Your task to perform on an android device: View the shopping cart on walmart. Add macbook to the cart on walmart, then select checkout. Image 0: 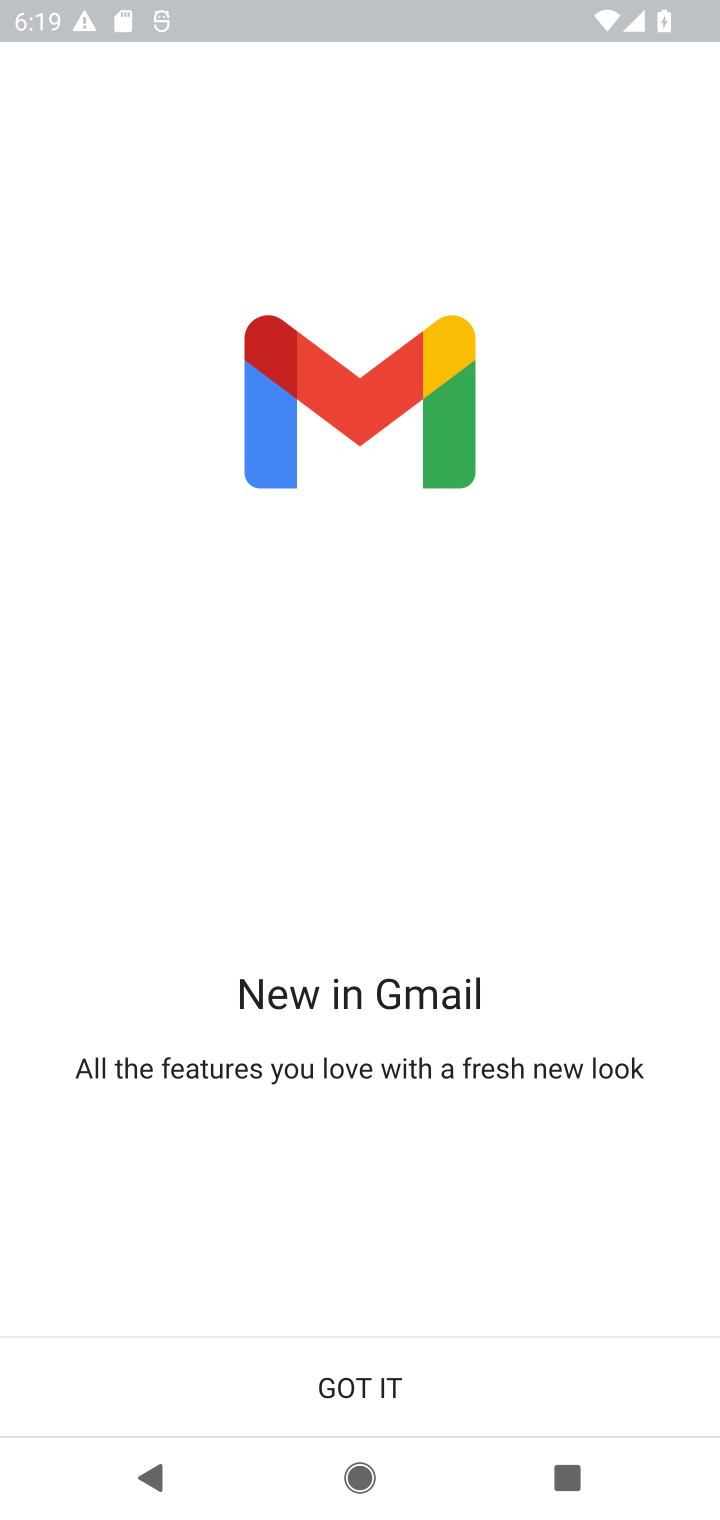
Step 0: press home button
Your task to perform on an android device: View the shopping cart on walmart. Add macbook to the cart on walmart, then select checkout. Image 1: 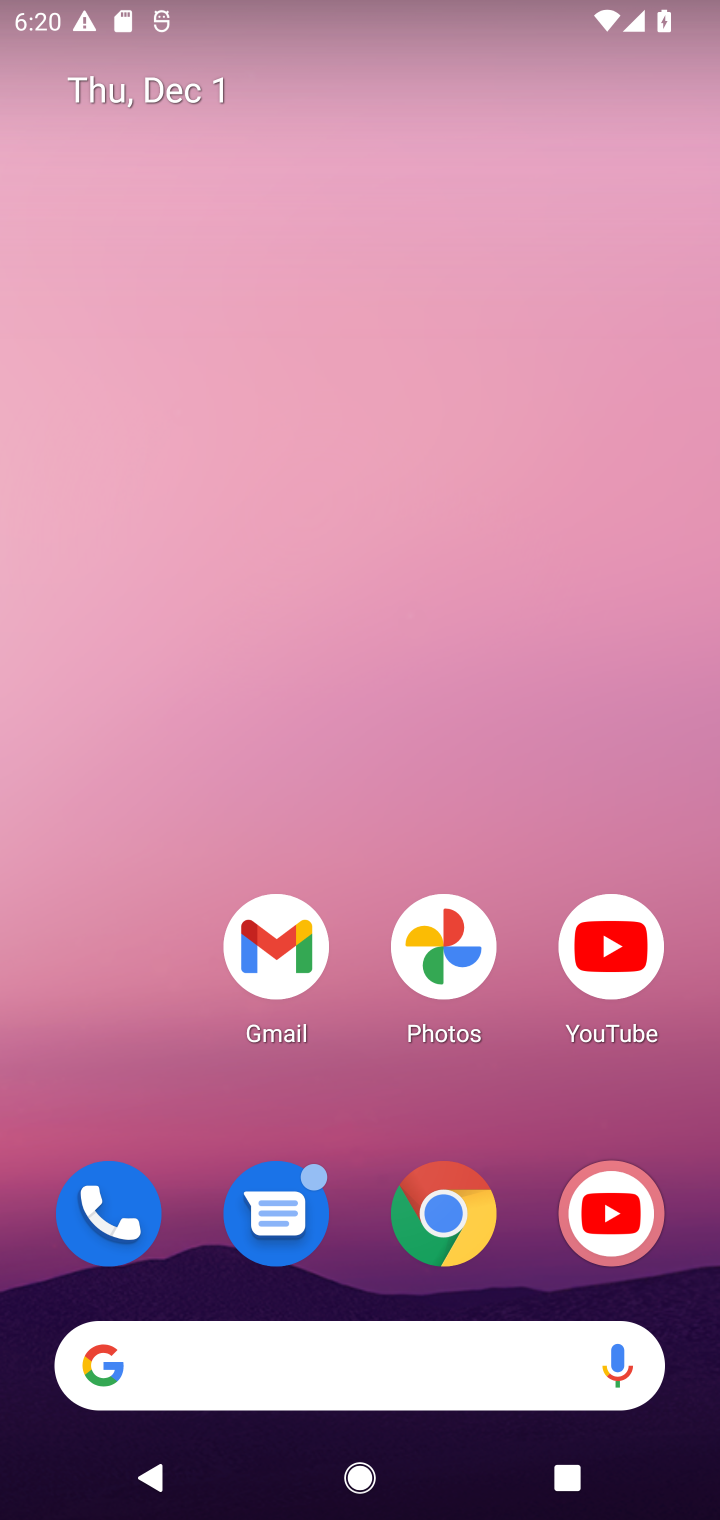
Step 1: click (441, 1369)
Your task to perform on an android device: View the shopping cart on walmart. Add macbook to the cart on walmart, then select checkout. Image 2: 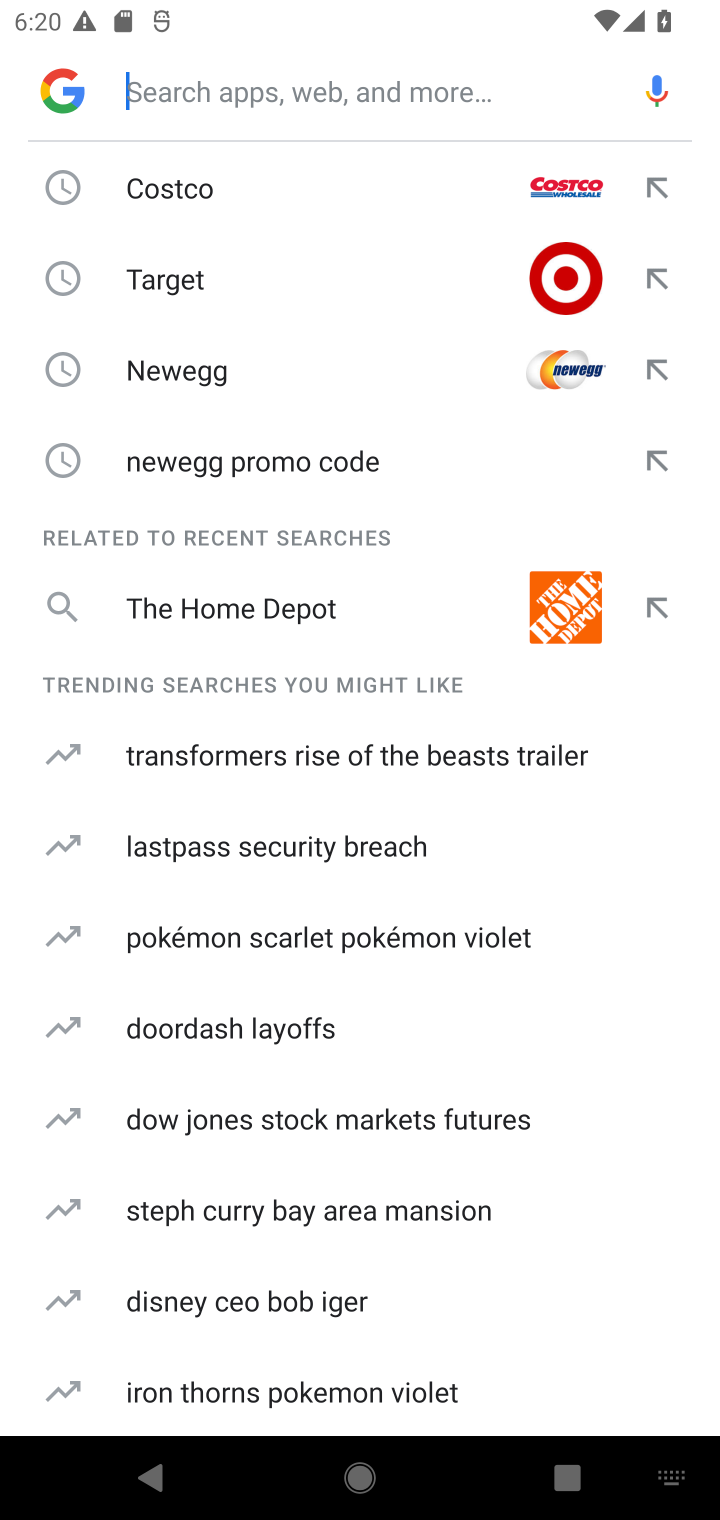
Step 2: type "walmart"
Your task to perform on an android device: View the shopping cart on walmart. Add macbook to the cart on walmart, then select checkout. Image 3: 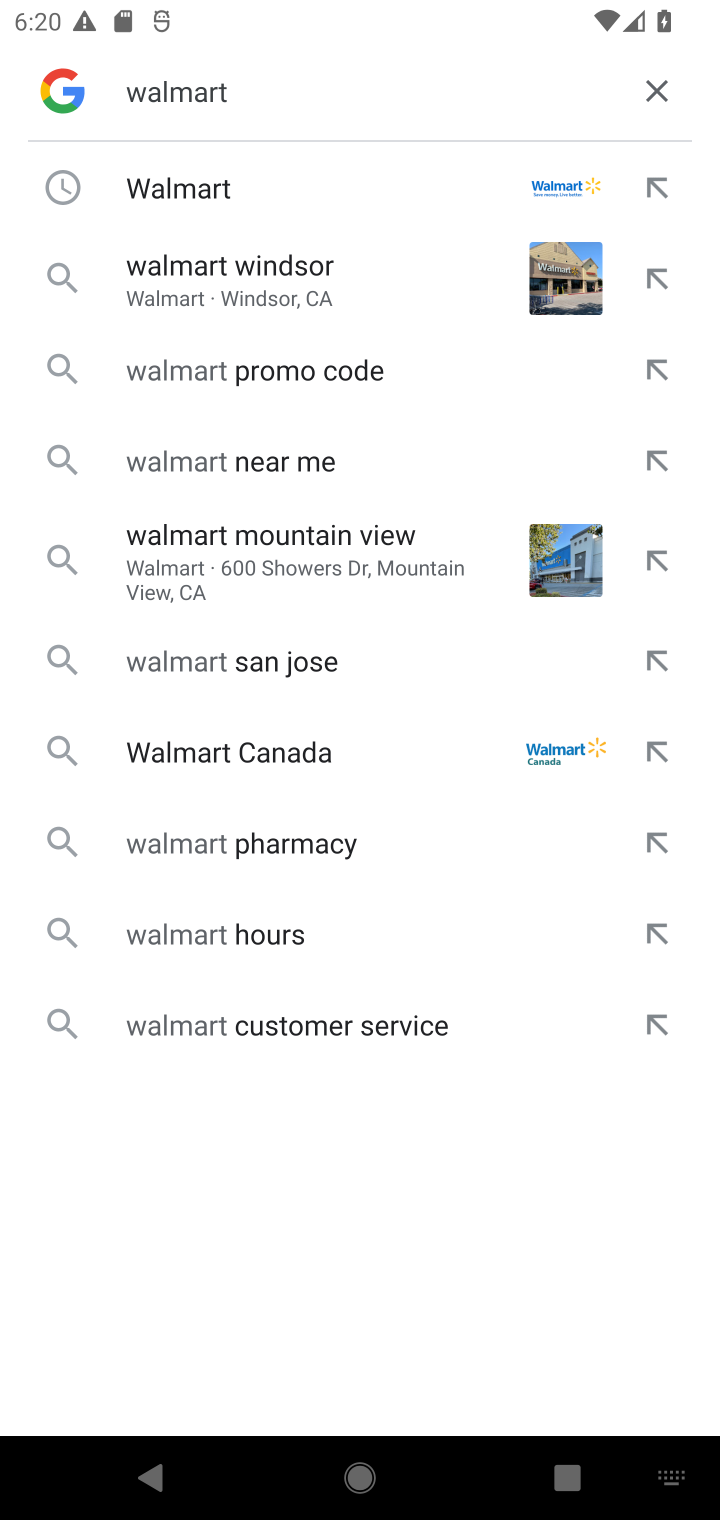
Step 3: click (205, 162)
Your task to perform on an android device: View the shopping cart on walmart. Add macbook to the cart on walmart, then select checkout. Image 4: 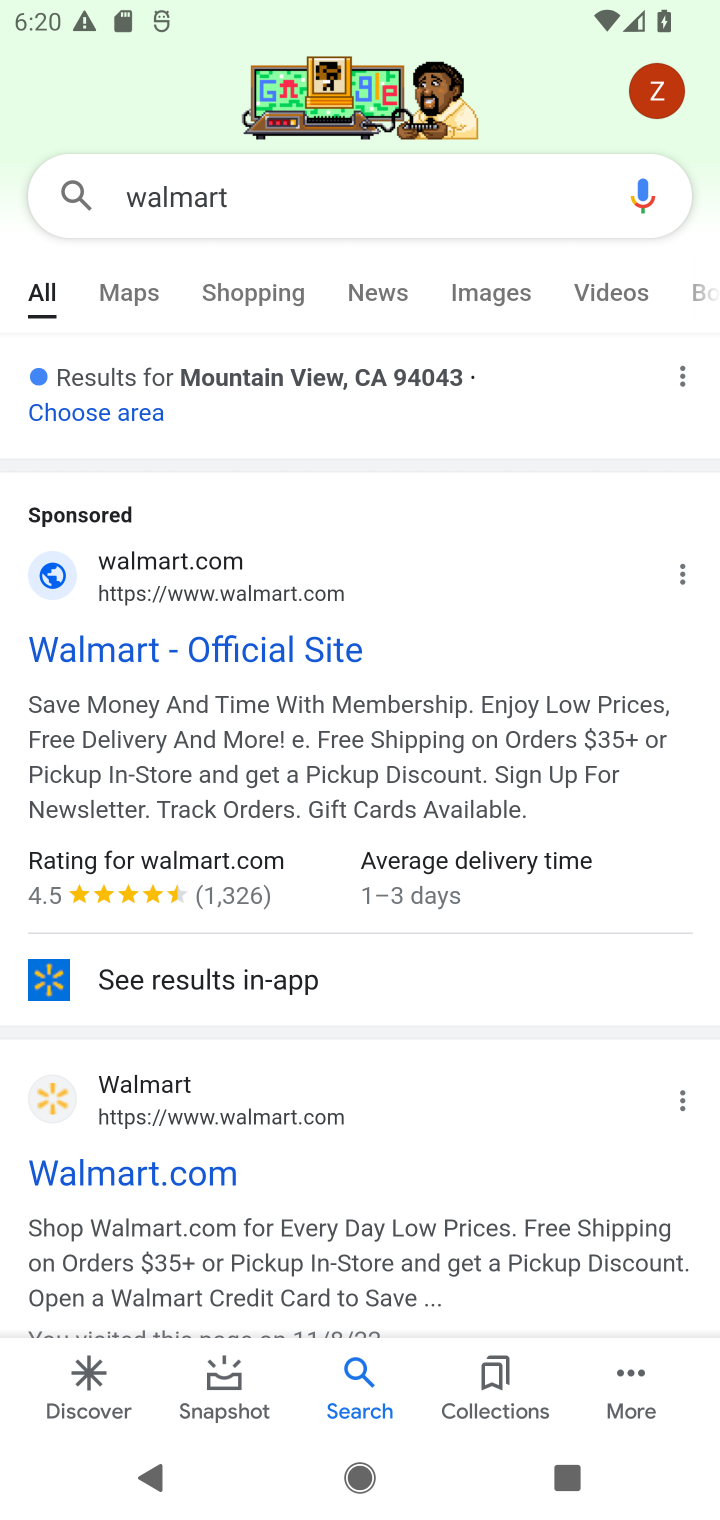
Step 4: click (237, 667)
Your task to perform on an android device: View the shopping cart on walmart. Add macbook to the cart on walmart, then select checkout. Image 5: 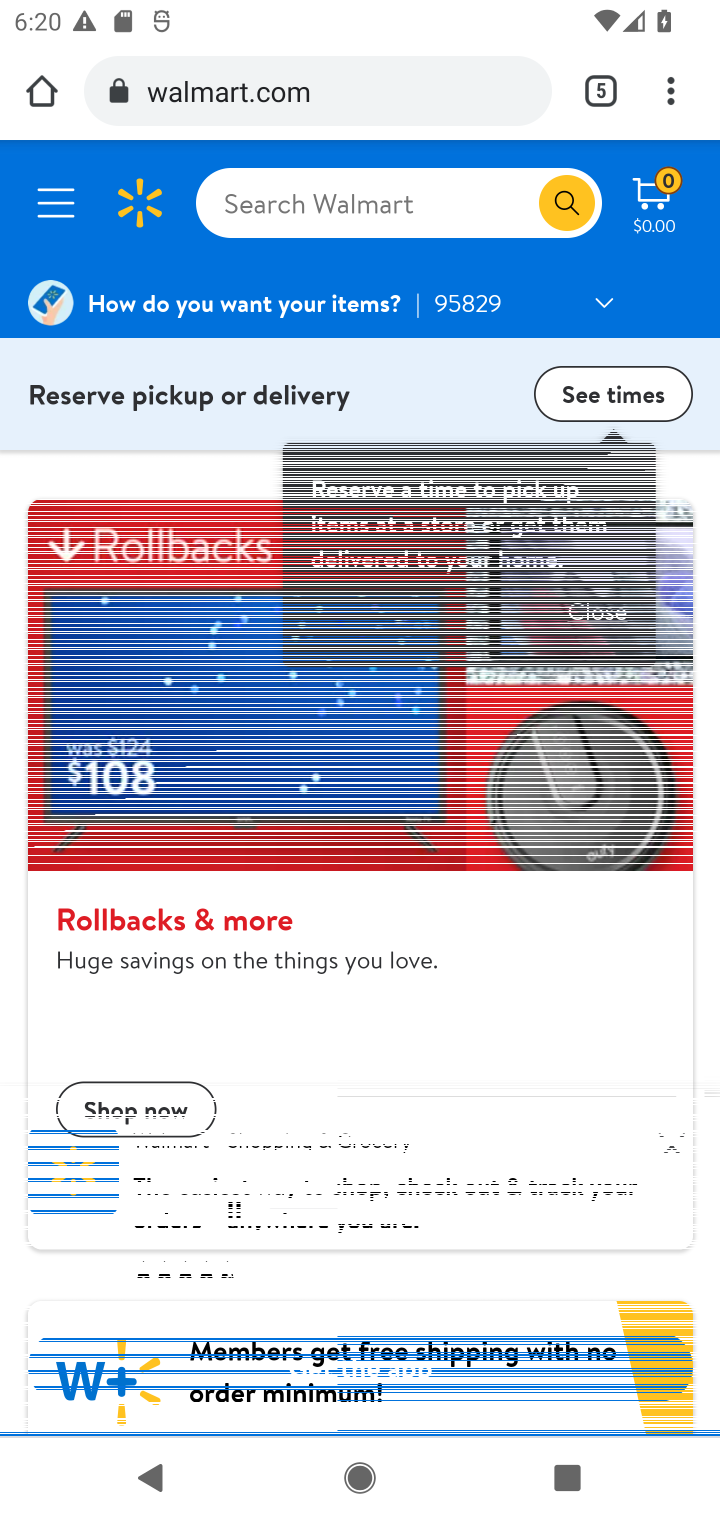
Step 5: click (276, 190)
Your task to perform on an android device: View the shopping cart on walmart. Add macbook to the cart on walmart, then select checkout. Image 6: 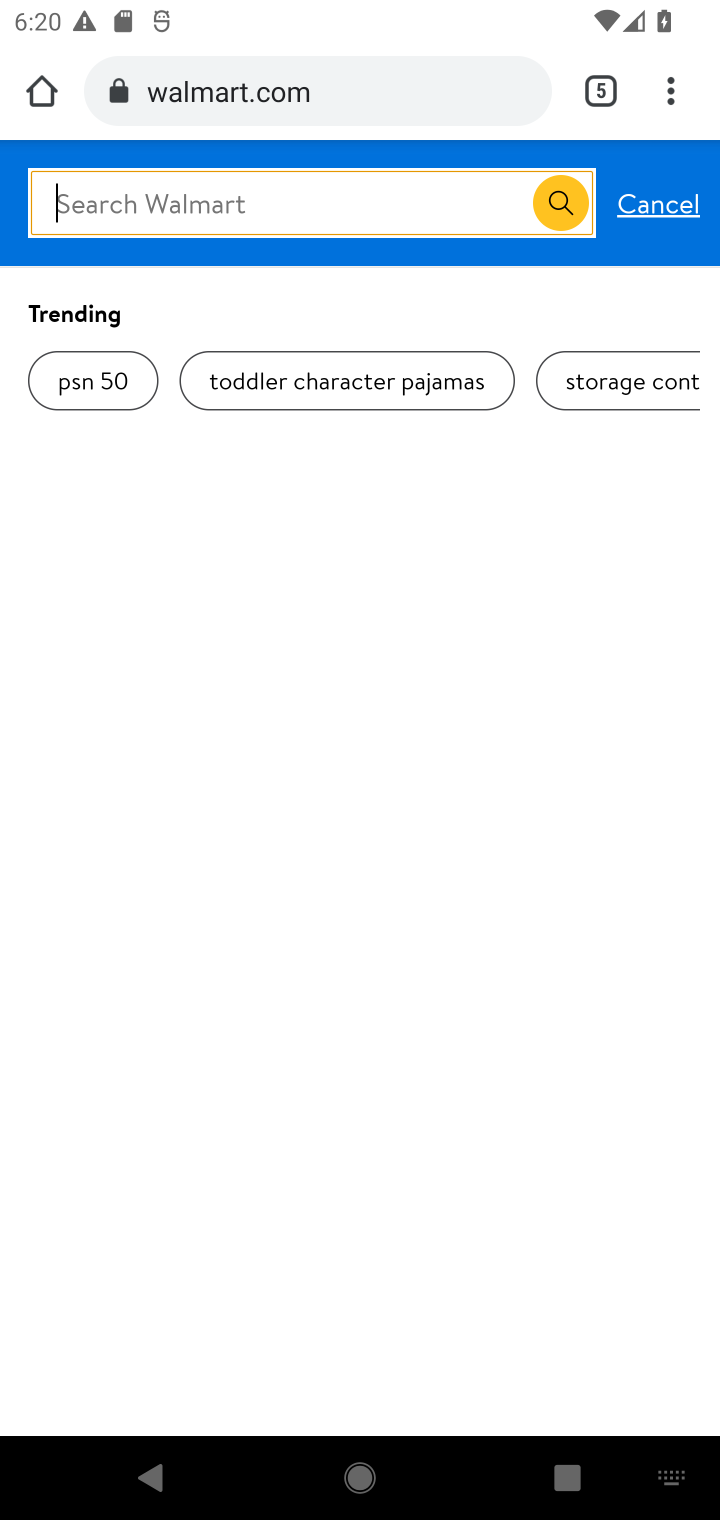
Step 6: click (635, 200)
Your task to perform on an android device: View the shopping cart on walmart. Add macbook to the cart on walmart, then select checkout. Image 7: 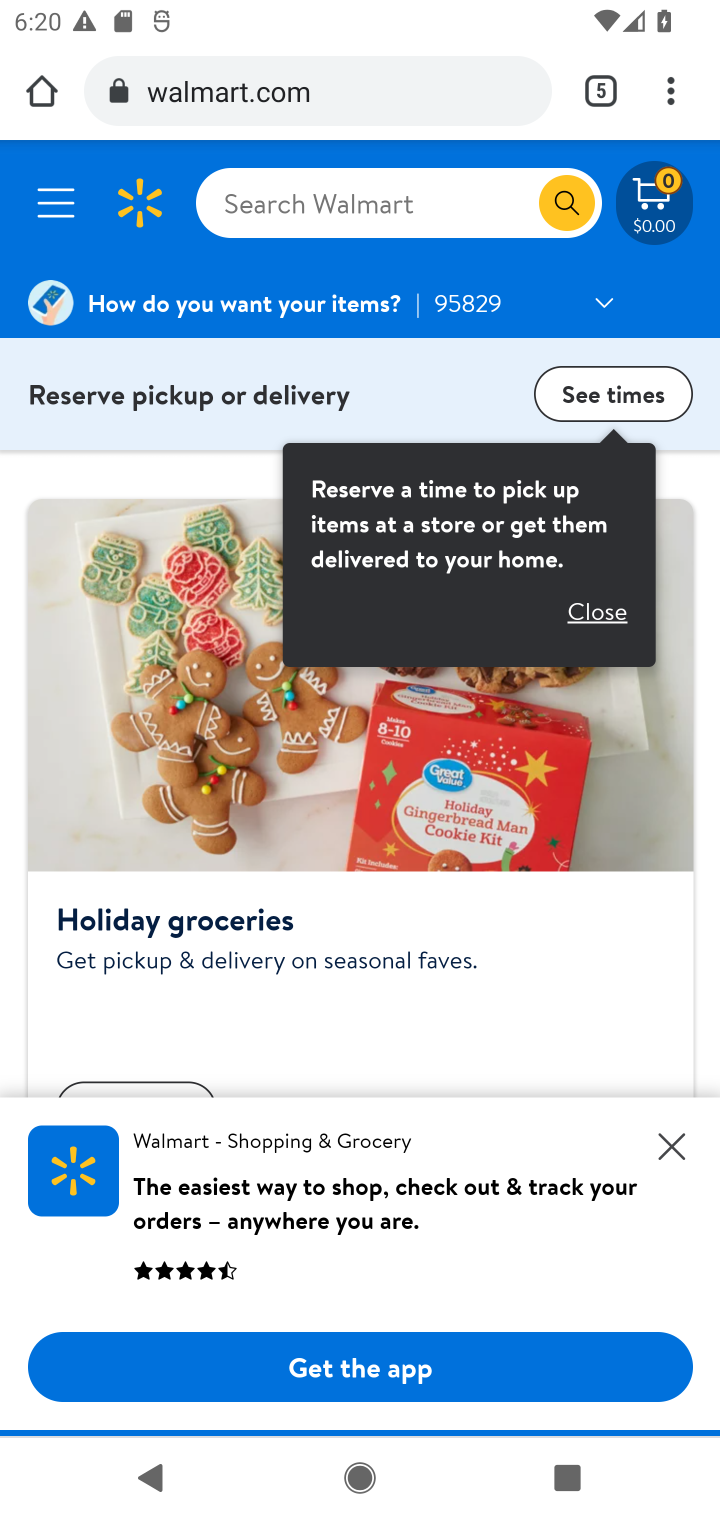
Step 7: click (635, 200)
Your task to perform on an android device: View the shopping cart on walmart. Add macbook to the cart on walmart, then select checkout. Image 8: 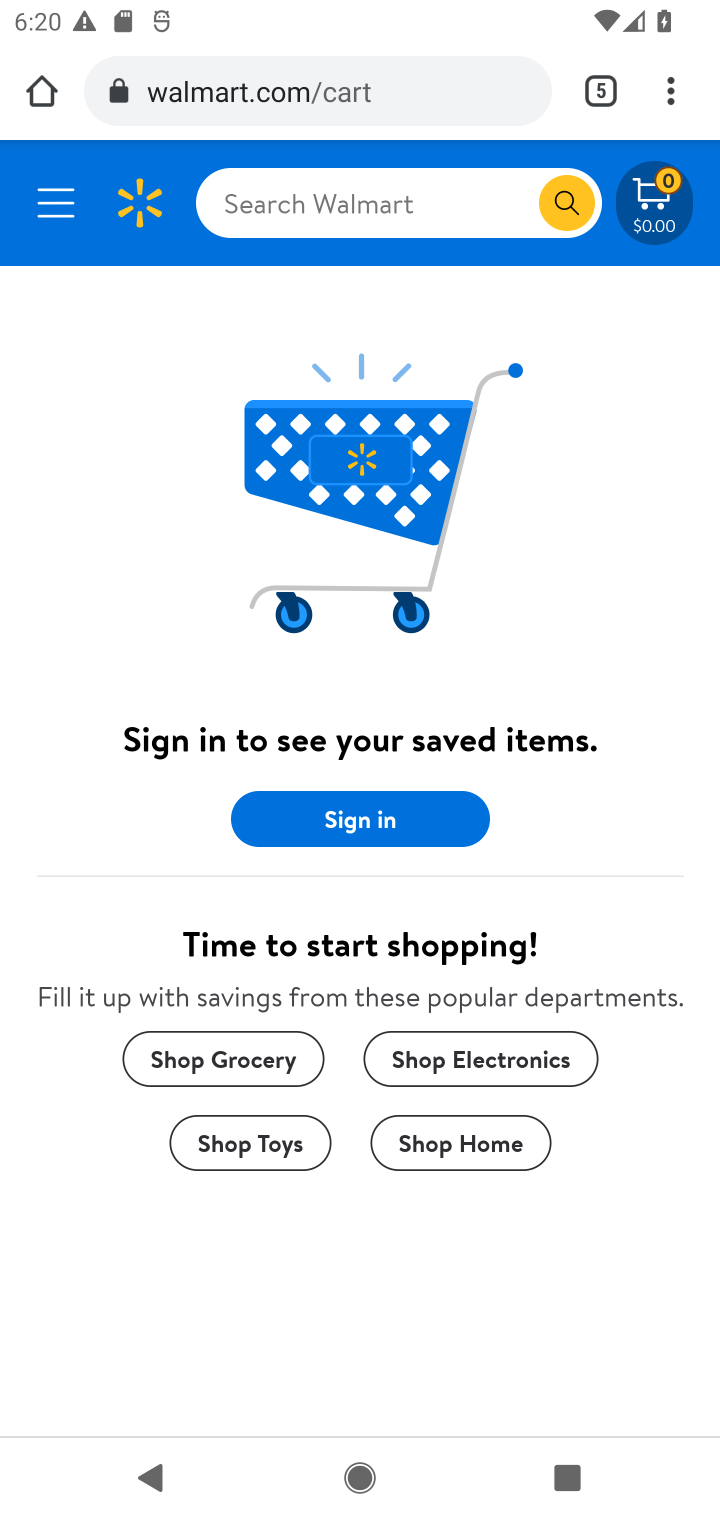
Step 8: task complete